Your task to perform on an android device: open device folders in google photos Image 0: 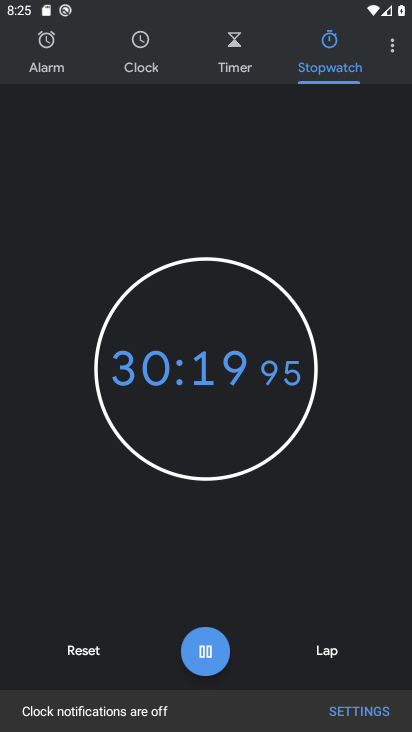
Step 0: press home button
Your task to perform on an android device: open device folders in google photos Image 1: 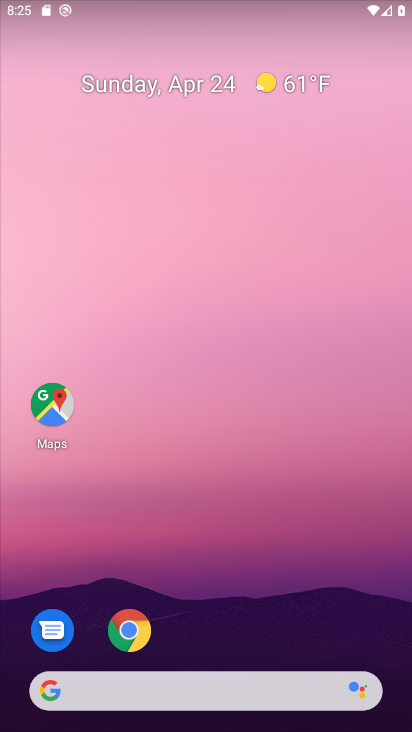
Step 1: drag from (351, 607) to (324, 107)
Your task to perform on an android device: open device folders in google photos Image 2: 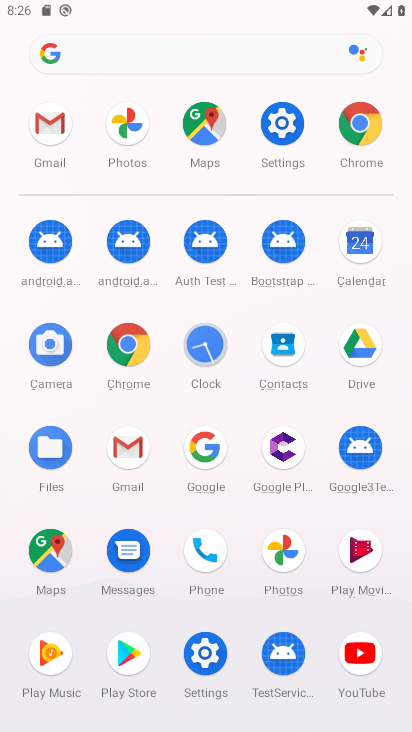
Step 2: click (281, 557)
Your task to perform on an android device: open device folders in google photos Image 3: 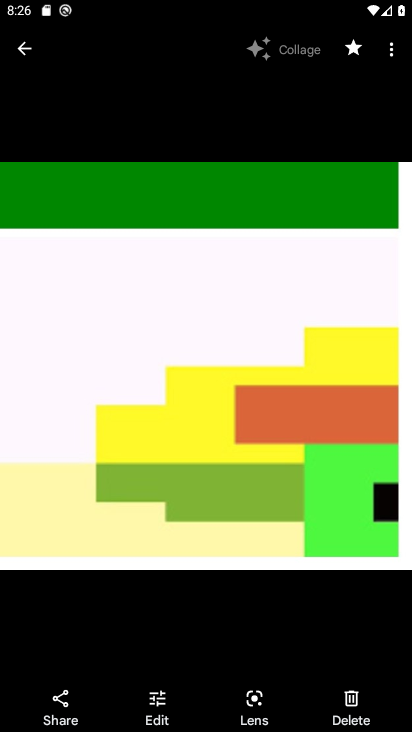
Step 3: click (30, 49)
Your task to perform on an android device: open device folders in google photos Image 4: 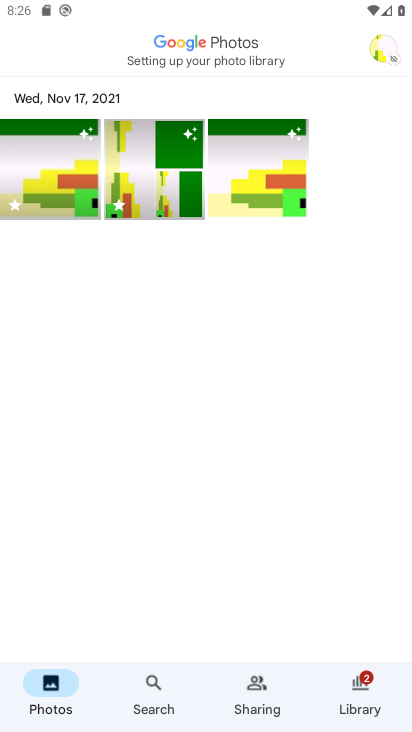
Step 4: click (371, 56)
Your task to perform on an android device: open device folders in google photos Image 5: 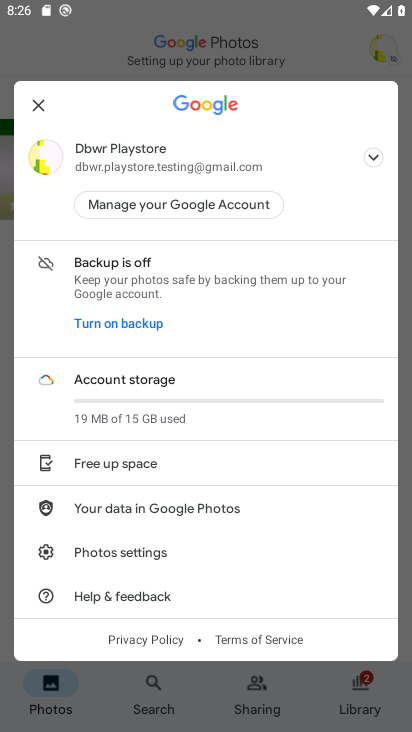
Step 5: drag from (312, 560) to (322, 424)
Your task to perform on an android device: open device folders in google photos Image 6: 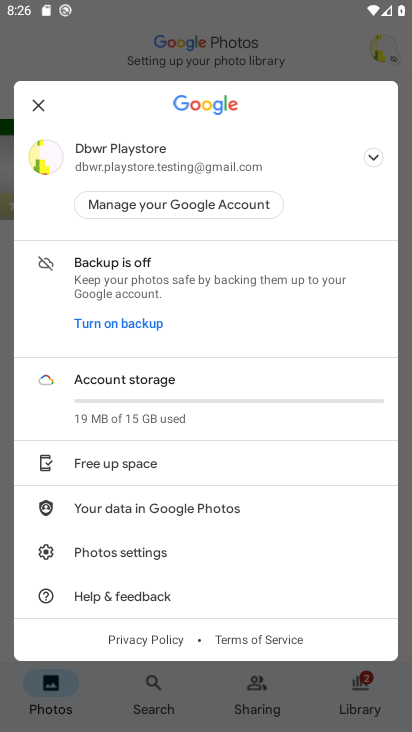
Step 6: click (40, 100)
Your task to perform on an android device: open device folders in google photos Image 7: 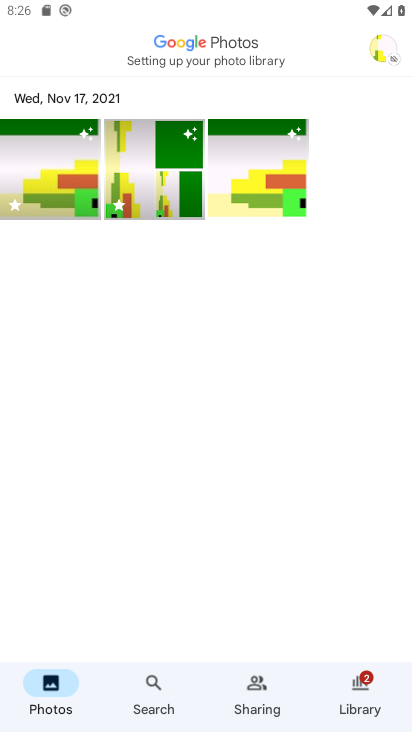
Step 7: click (350, 694)
Your task to perform on an android device: open device folders in google photos Image 8: 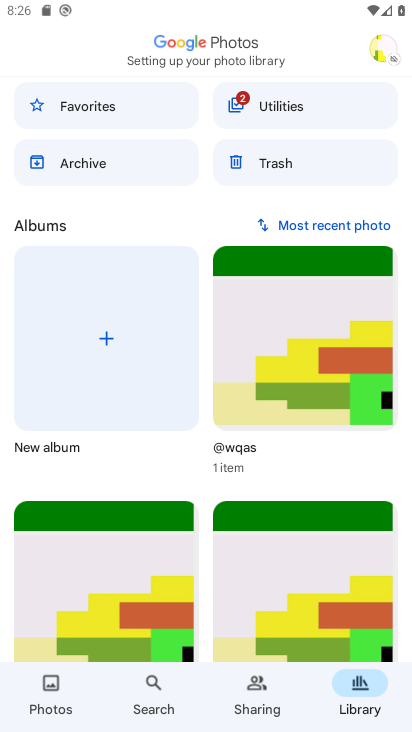
Step 8: task complete